Your task to perform on an android device: What's the weather today? Image 0: 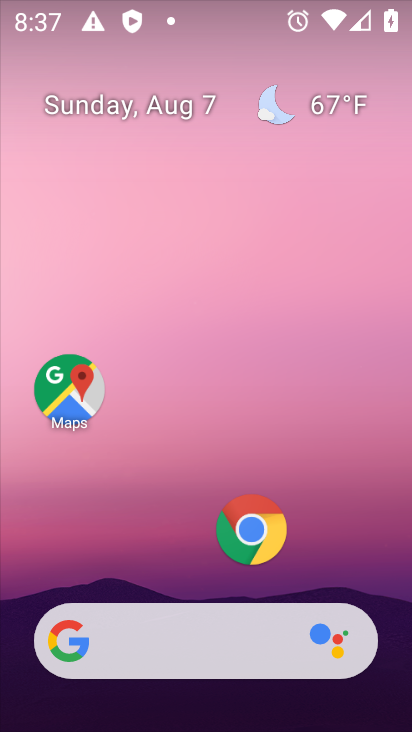
Step 0: click (314, 97)
Your task to perform on an android device: What's the weather today? Image 1: 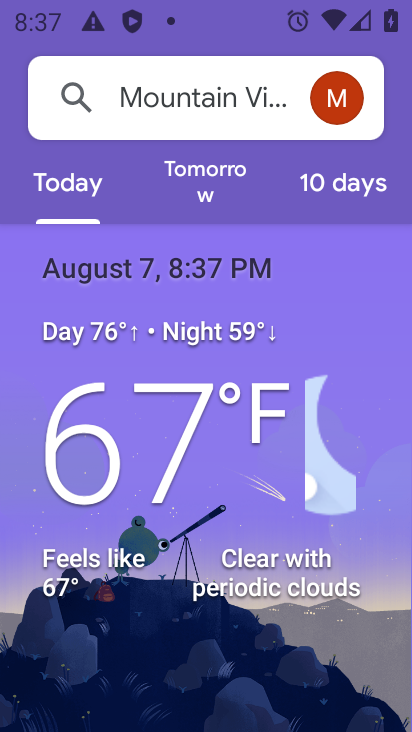
Step 1: task complete